Your task to perform on an android device: Search for Mexican restaurants on Maps Image 0: 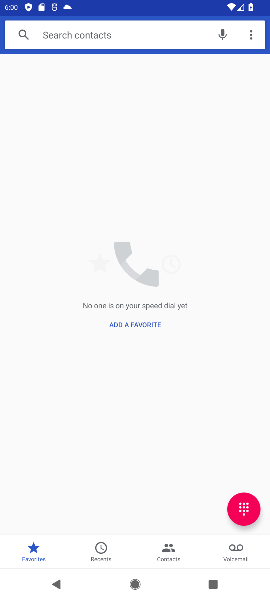
Step 0: press home button
Your task to perform on an android device: Search for Mexican restaurants on Maps Image 1: 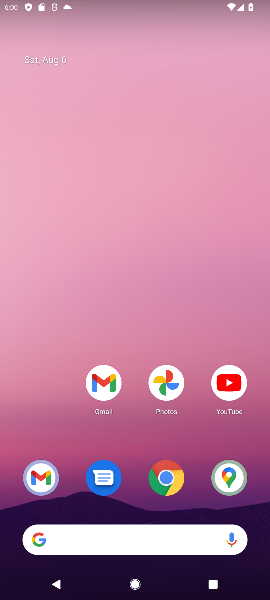
Step 1: click (228, 476)
Your task to perform on an android device: Search for Mexican restaurants on Maps Image 2: 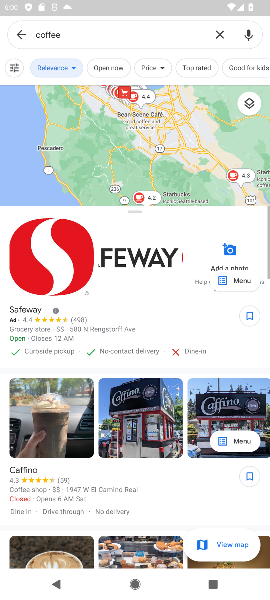
Step 2: click (23, 40)
Your task to perform on an android device: Search for Mexican restaurants on Maps Image 3: 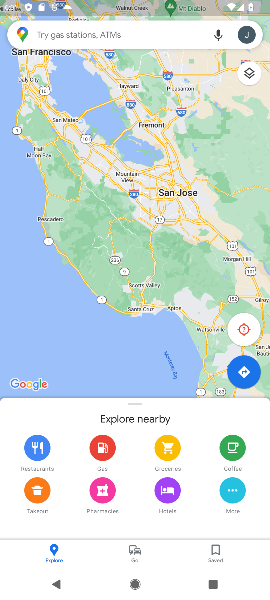
Step 3: click (68, 33)
Your task to perform on an android device: Search for Mexican restaurants on Maps Image 4: 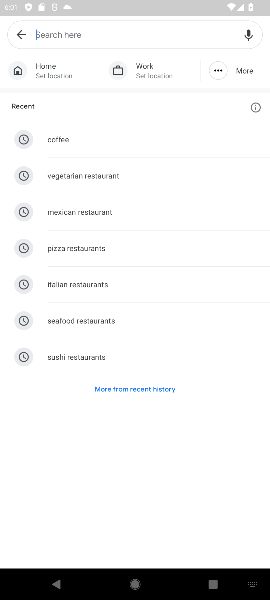
Step 4: click (89, 209)
Your task to perform on an android device: Search for Mexican restaurants on Maps Image 5: 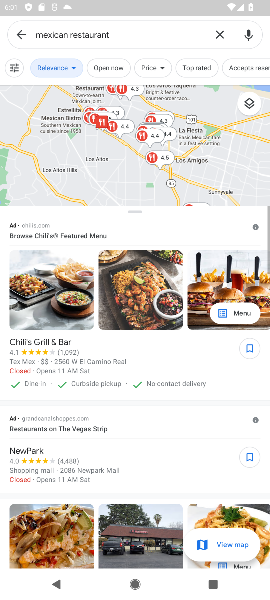
Step 5: task complete